Your task to perform on an android device: Clear the cart on bestbuy.com. Search for logitech g910 on bestbuy.com, select the first entry, and add it to the cart. Image 0: 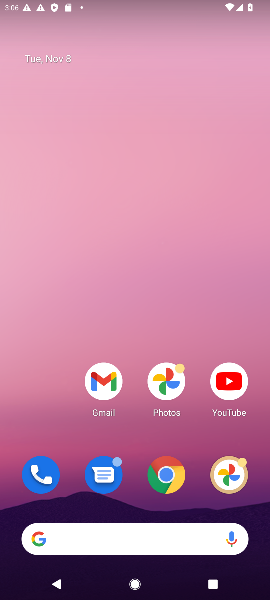
Step 0: drag from (130, 543) to (123, 104)
Your task to perform on an android device: Clear the cart on bestbuy.com. Search for logitech g910 on bestbuy.com, select the first entry, and add it to the cart. Image 1: 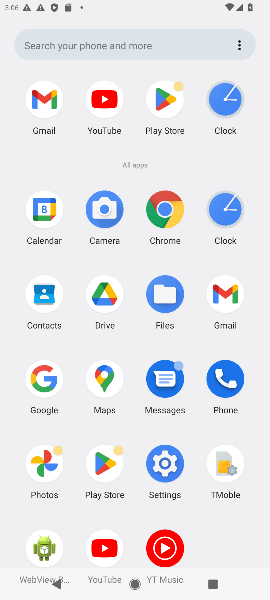
Step 1: click (45, 378)
Your task to perform on an android device: Clear the cart on bestbuy.com. Search for logitech g910 on bestbuy.com, select the first entry, and add it to the cart. Image 2: 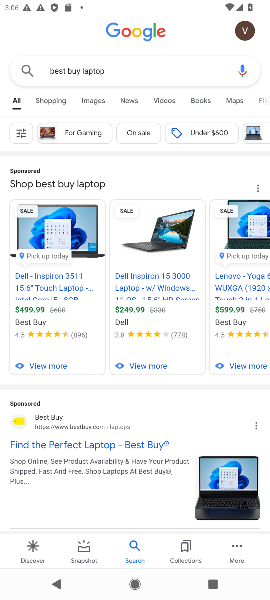
Step 2: click (156, 63)
Your task to perform on an android device: Clear the cart on bestbuy.com. Search for logitech g910 on bestbuy.com, select the first entry, and add it to the cart. Image 3: 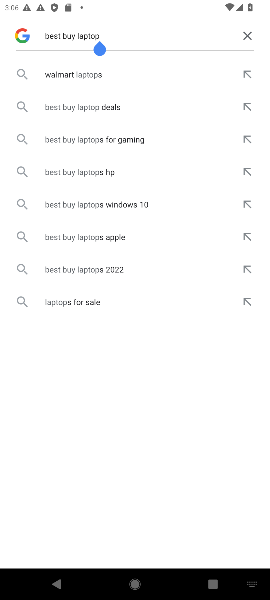
Step 3: click (248, 40)
Your task to perform on an android device: Clear the cart on bestbuy.com. Search for logitech g910 on bestbuy.com, select the first entry, and add it to the cart. Image 4: 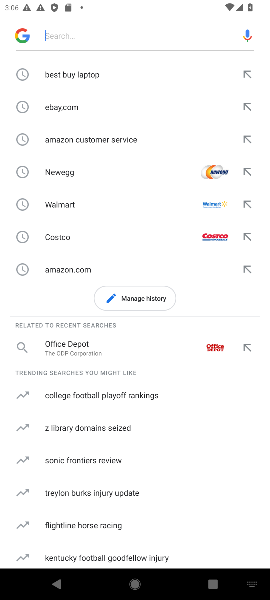
Step 4: click (103, 45)
Your task to perform on an android device: Clear the cart on bestbuy.com. Search for logitech g910 on bestbuy.com, select the first entry, and add it to the cart. Image 5: 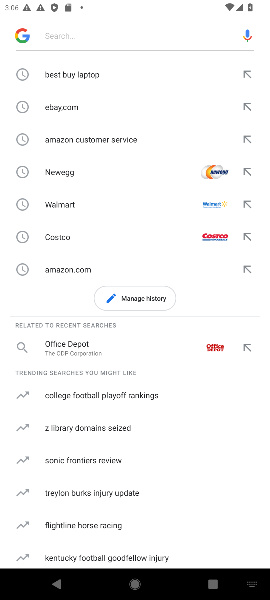
Step 5: click (103, 43)
Your task to perform on an android device: Clear the cart on bestbuy.com. Search for logitech g910 on bestbuy.com, select the first entry, and add it to the cart. Image 6: 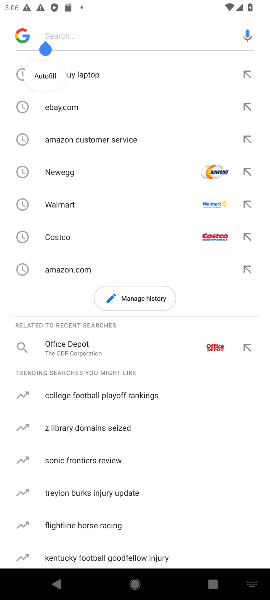
Step 6: type "bestbuy "
Your task to perform on an android device: Clear the cart on bestbuy.com. Search for logitech g910 on bestbuy.com, select the first entry, and add it to the cart. Image 7: 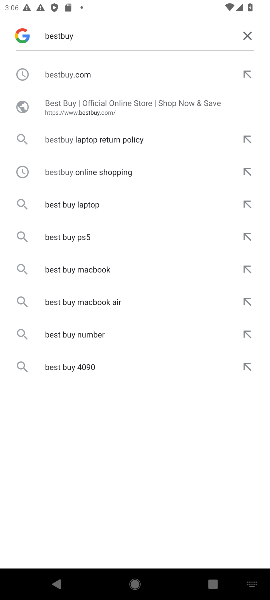
Step 7: click (88, 79)
Your task to perform on an android device: Clear the cart on bestbuy.com. Search for logitech g910 on bestbuy.com, select the first entry, and add it to the cart. Image 8: 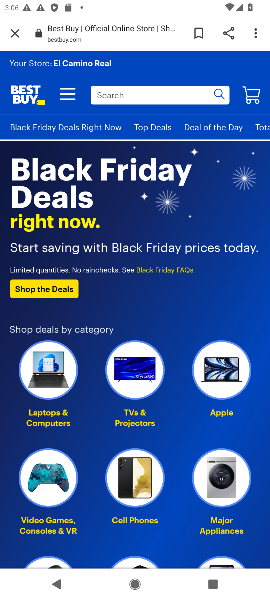
Step 8: click (140, 90)
Your task to perform on an android device: Clear the cart on bestbuy.com. Search for logitech g910 on bestbuy.com, select the first entry, and add it to the cart. Image 9: 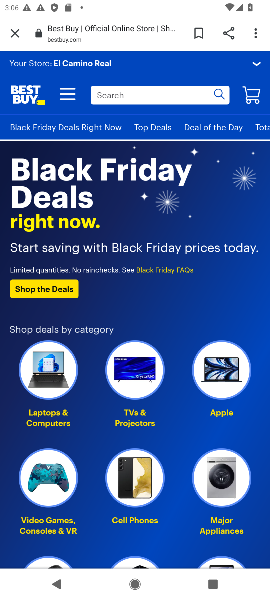
Step 9: click (136, 90)
Your task to perform on an android device: Clear the cart on bestbuy.com. Search for logitech g910 on bestbuy.com, select the first entry, and add it to the cart. Image 10: 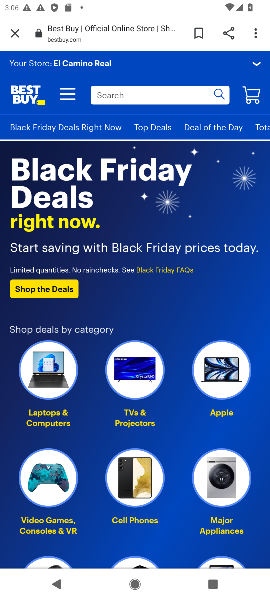
Step 10: click (136, 90)
Your task to perform on an android device: Clear the cart on bestbuy.com. Search for logitech g910 on bestbuy.com, select the first entry, and add it to the cart. Image 11: 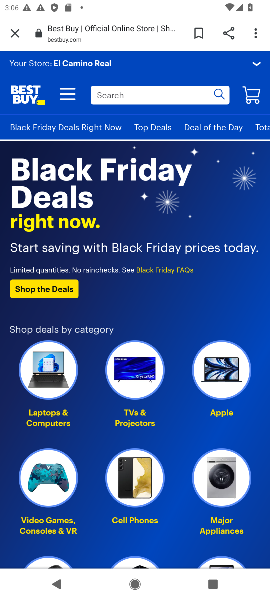
Step 11: type "logitech g910 "
Your task to perform on an android device: Clear the cart on bestbuy.com. Search for logitech g910 on bestbuy.com, select the first entry, and add it to the cart. Image 12: 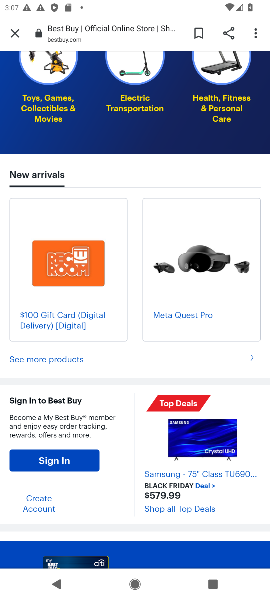
Step 12: drag from (173, 79) to (163, 515)
Your task to perform on an android device: Clear the cart on bestbuy.com. Search for logitech g910 on bestbuy.com, select the first entry, and add it to the cart. Image 13: 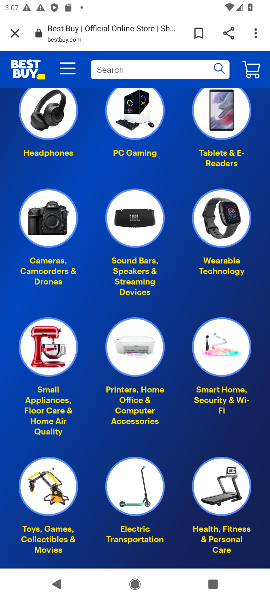
Step 13: click (128, 67)
Your task to perform on an android device: Clear the cart on bestbuy.com. Search for logitech g910 on bestbuy.com, select the first entry, and add it to the cart. Image 14: 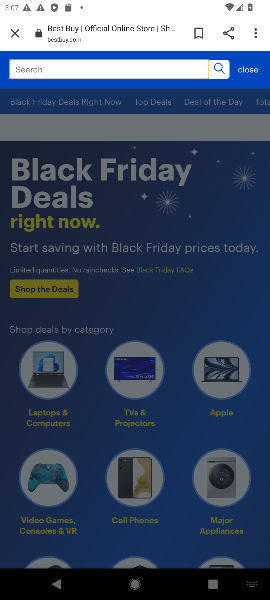
Step 14: click (103, 61)
Your task to perform on an android device: Clear the cart on bestbuy.com. Search for logitech g910 on bestbuy.com, select the first entry, and add it to the cart. Image 15: 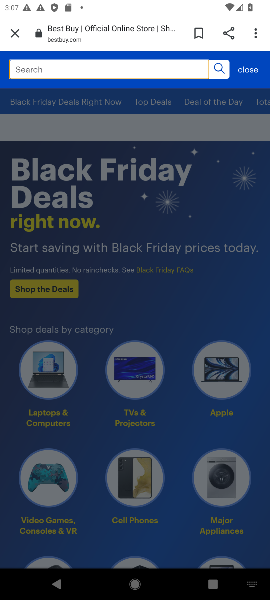
Step 15: type "logitech g910 "
Your task to perform on an android device: Clear the cart on bestbuy.com. Search for logitech g910 on bestbuy.com, select the first entry, and add it to the cart. Image 16: 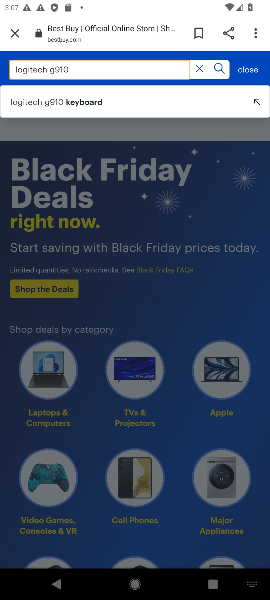
Step 16: click (85, 106)
Your task to perform on an android device: Clear the cart on bestbuy.com. Search for logitech g910 on bestbuy.com, select the first entry, and add it to the cart. Image 17: 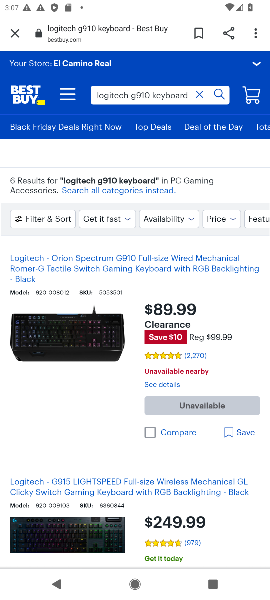
Step 17: drag from (185, 540) to (209, 279)
Your task to perform on an android device: Clear the cart on bestbuy.com. Search for logitech g910 on bestbuy.com, select the first entry, and add it to the cart. Image 18: 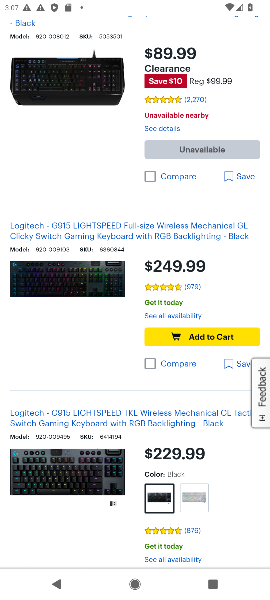
Step 18: click (185, 333)
Your task to perform on an android device: Clear the cart on bestbuy.com. Search for logitech g910 on bestbuy.com, select the first entry, and add it to the cart. Image 19: 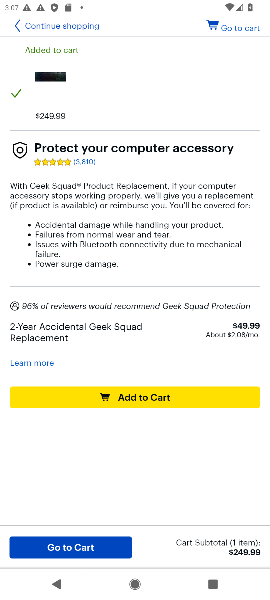
Step 19: click (170, 395)
Your task to perform on an android device: Clear the cart on bestbuy.com. Search for logitech g910 on bestbuy.com, select the first entry, and add it to the cart. Image 20: 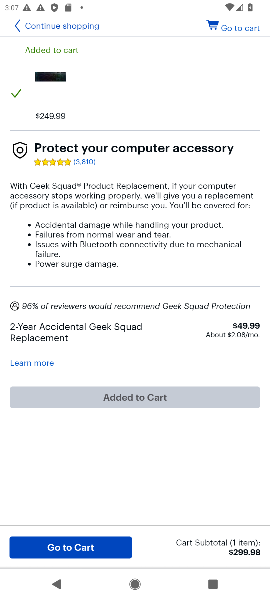
Step 20: task complete